Your task to perform on an android device: Open Google Maps and go to "Timeline" Image 0: 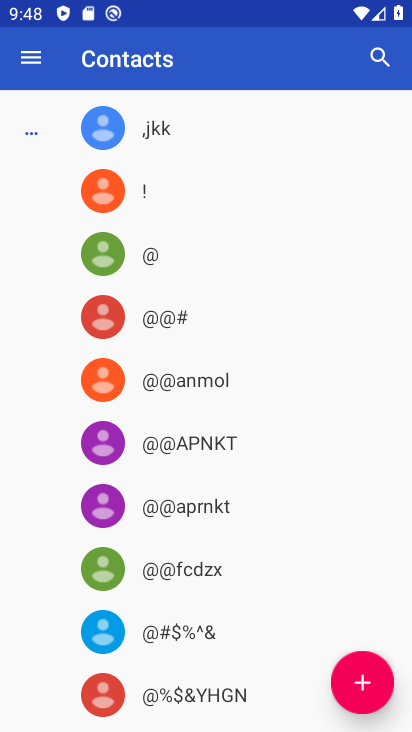
Step 0: press home button
Your task to perform on an android device: Open Google Maps and go to "Timeline" Image 1: 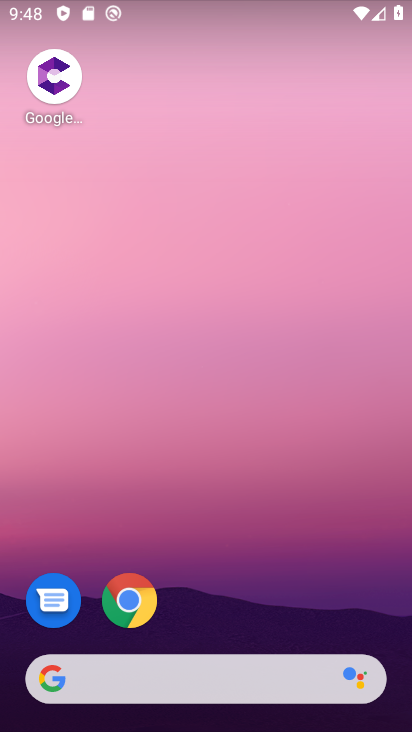
Step 1: drag from (125, 719) to (119, 144)
Your task to perform on an android device: Open Google Maps and go to "Timeline" Image 2: 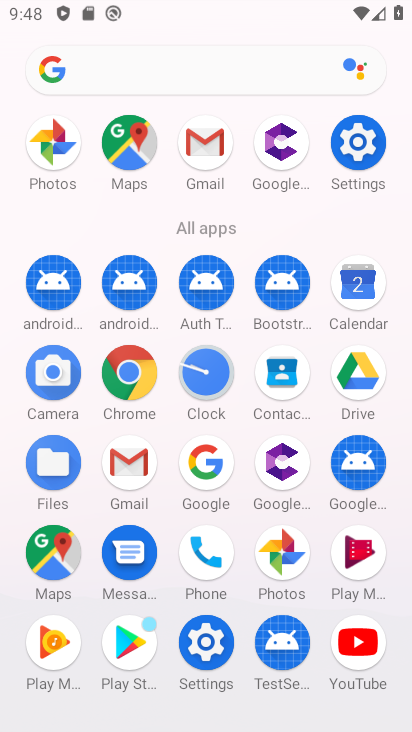
Step 2: click (135, 157)
Your task to perform on an android device: Open Google Maps and go to "Timeline" Image 3: 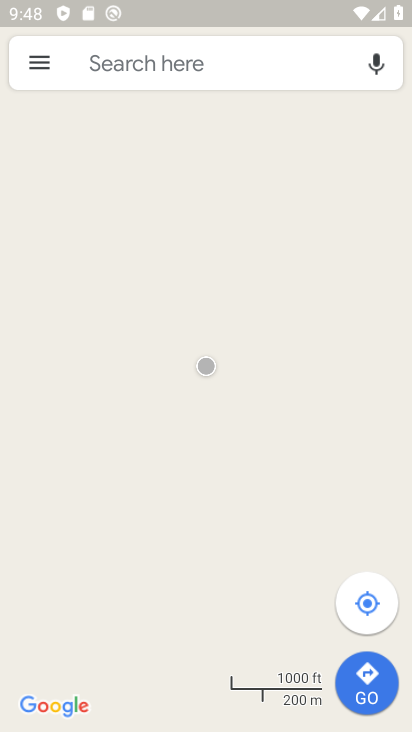
Step 3: click (41, 65)
Your task to perform on an android device: Open Google Maps and go to "Timeline" Image 4: 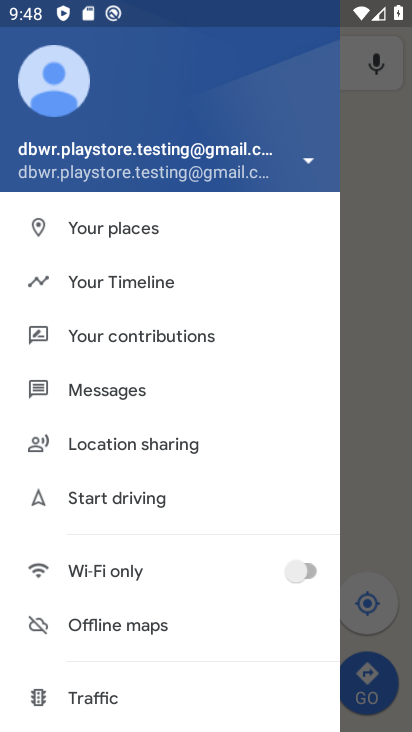
Step 4: click (91, 284)
Your task to perform on an android device: Open Google Maps and go to "Timeline" Image 5: 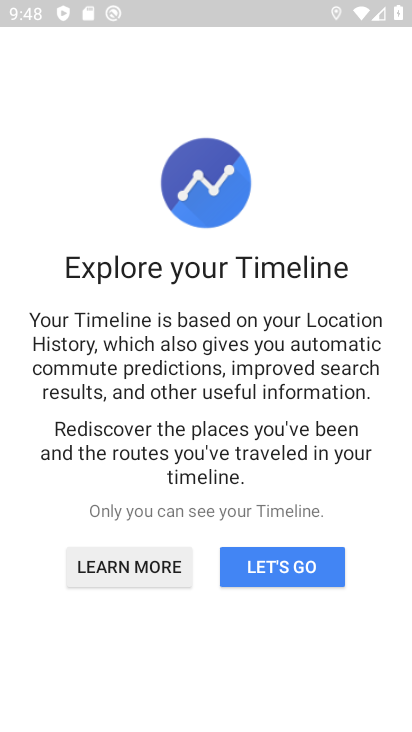
Step 5: click (265, 563)
Your task to perform on an android device: Open Google Maps and go to "Timeline" Image 6: 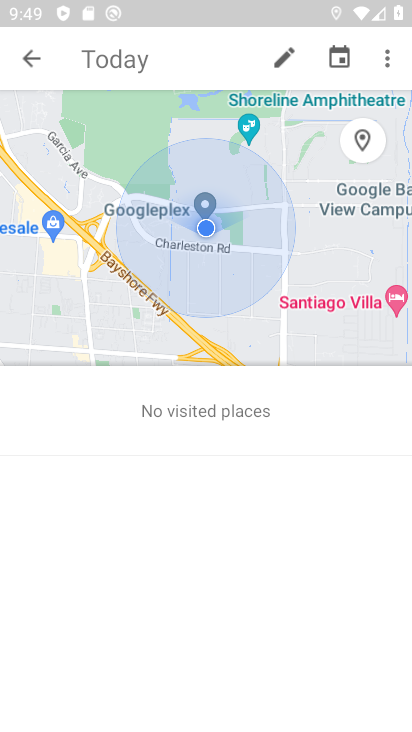
Step 6: task complete